Your task to perform on an android device: Go to Amazon Image 0: 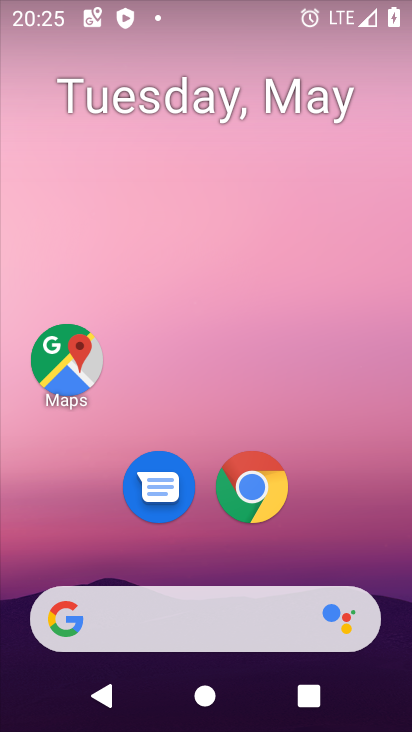
Step 0: click (256, 483)
Your task to perform on an android device: Go to Amazon Image 1: 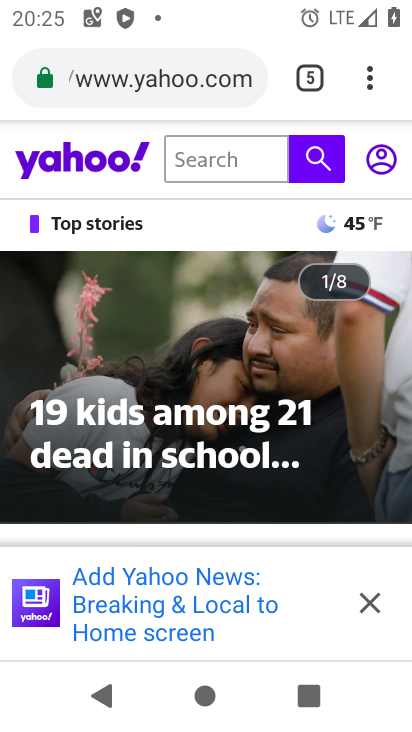
Step 1: click (374, 69)
Your task to perform on an android device: Go to Amazon Image 2: 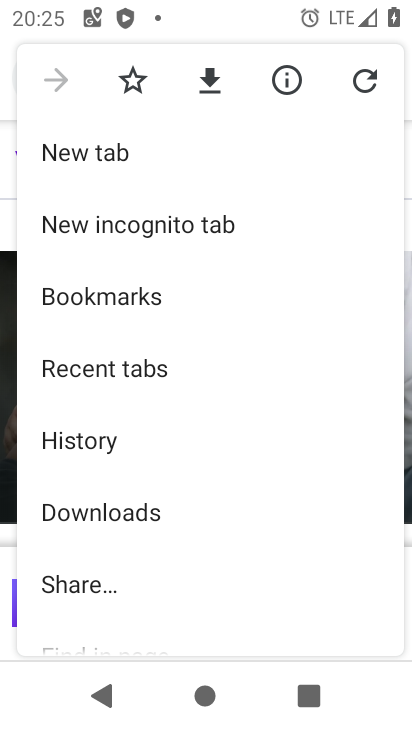
Step 2: click (114, 145)
Your task to perform on an android device: Go to Amazon Image 3: 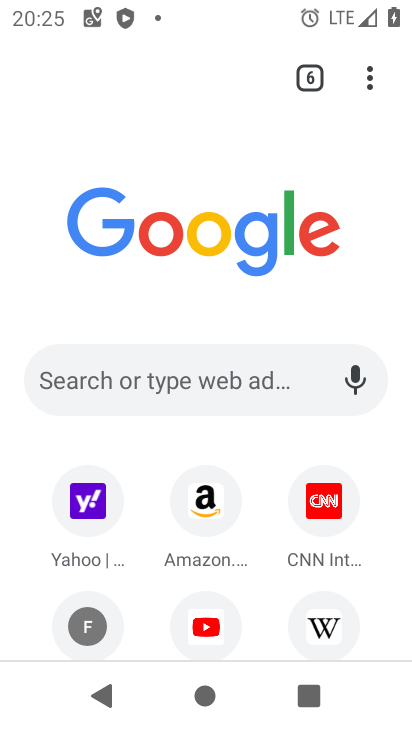
Step 3: click (205, 505)
Your task to perform on an android device: Go to Amazon Image 4: 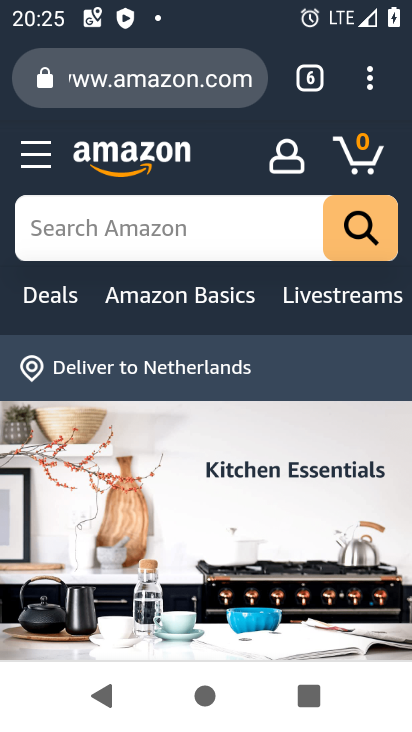
Step 4: task complete